Your task to perform on an android device: Show me popular games on the Play Store Image 0: 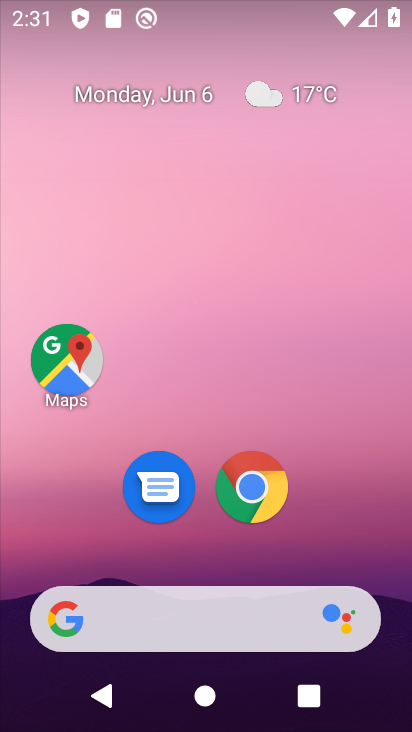
Step 0: drag from (112, 589) to (200, 114)
Your task to perform on an android device: Show me popular games on the Play Store Image 1: 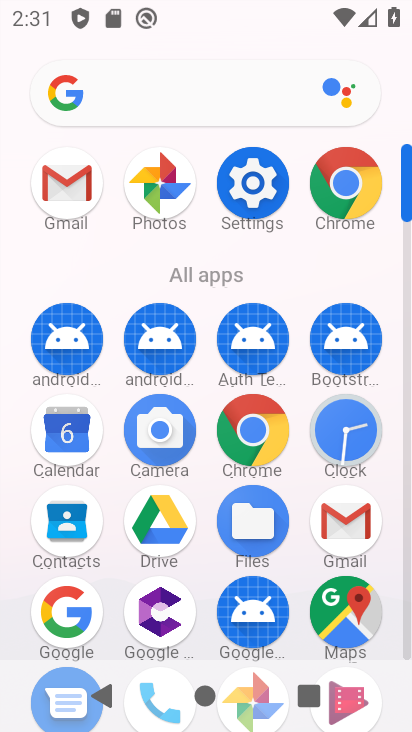
Step 1: drag from (160, 589) to (206, 335)
Your task to perform on an android device: Show me popular games on the Play Store Image 2: 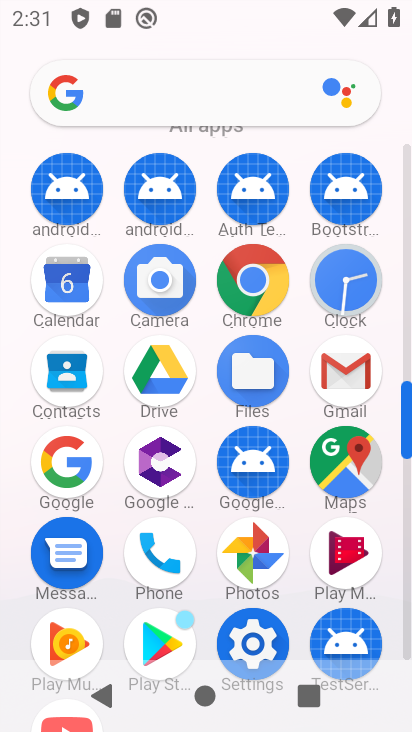
Step 2: click (173, 628)
Your task to perform on an android device: Show me popular games on the Play Store Image 3: 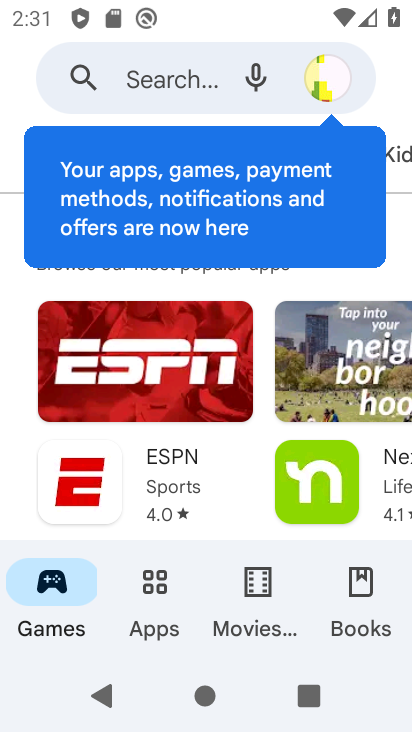
Step 3: drag from (202, 547) to (309, 120)
Your task to perform on an android device: Show me popular games on the Play Store Image 4: 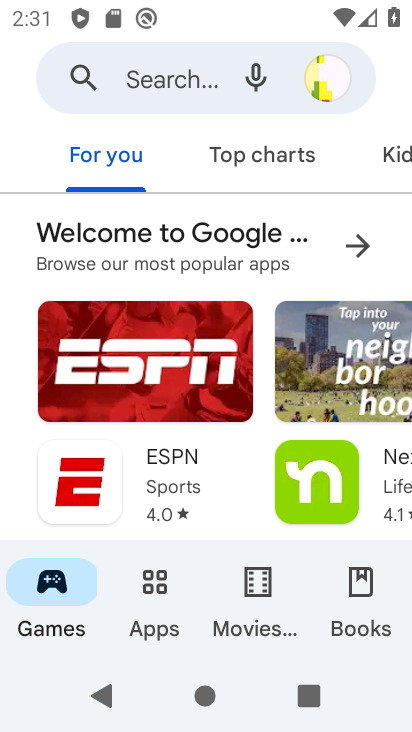
Step 4: drag from (198, 487) to (312, 170)
Your task to perform on an android device: Show me popular games on the Play Store Image 5: 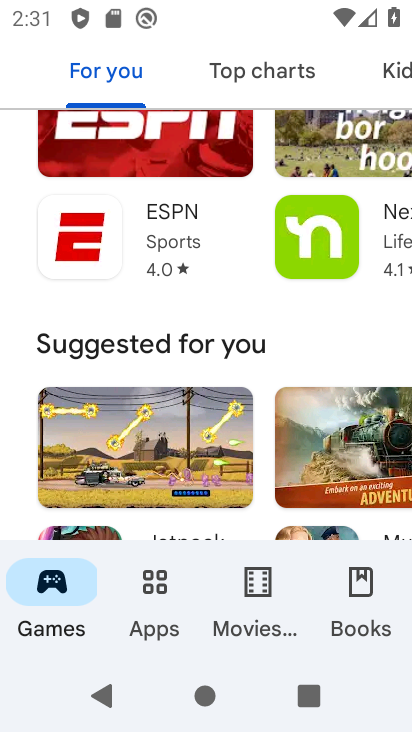
Step 5: drag from (153, 490) to (236, 84)
Your task to perform on an android device: Show me popular games on the Play Store Image 6: 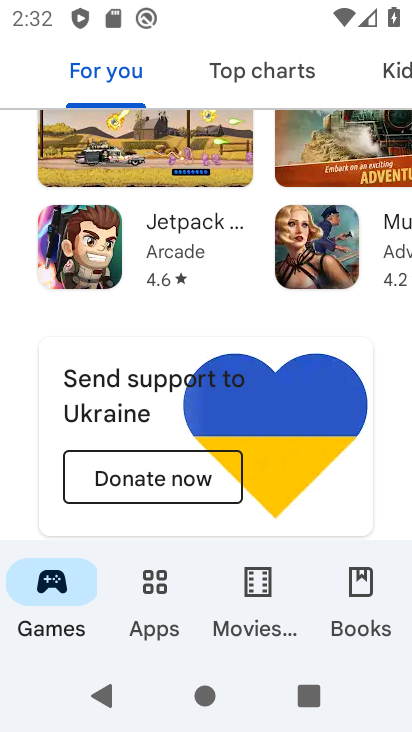
Step 6: drag from (103, 513) to (276, 36)
Your task to perform on an android device: Show me popular games on the Play Store Image 7: 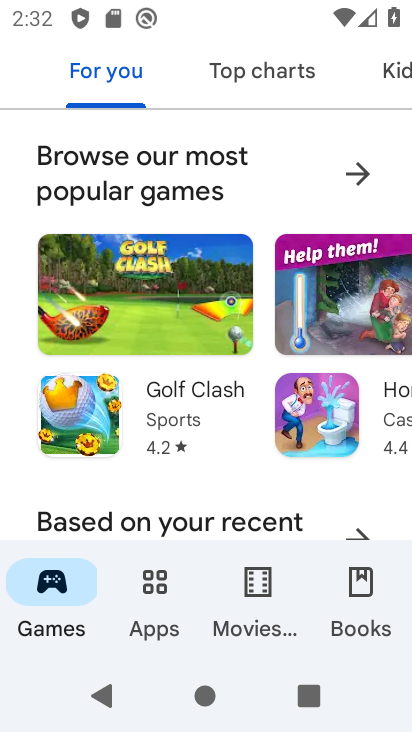
Step 7: click (380, 183)
Your task to perform on an android device: Show me popular games on the Play Store Image 8: 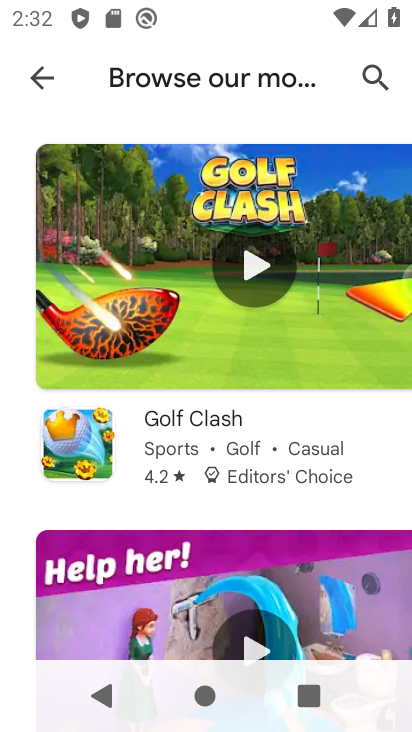
Step 8: task complete